Your task to perform on an android device: turn pop-ups on in chrome Image 0: 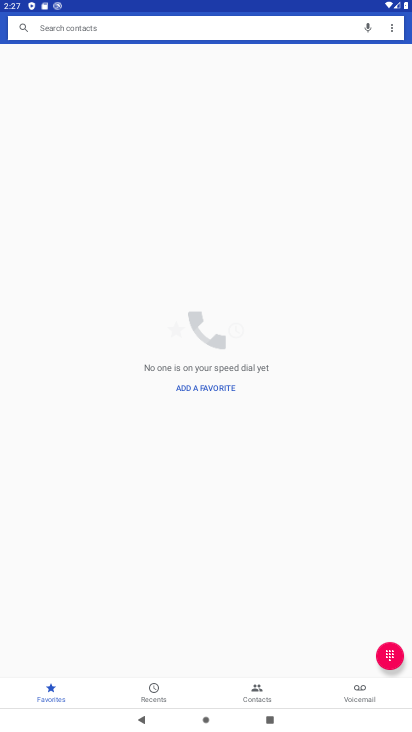
Step 0: press back button
Your task to perform on an android device: turn pop-ups on in chrome Image 1: 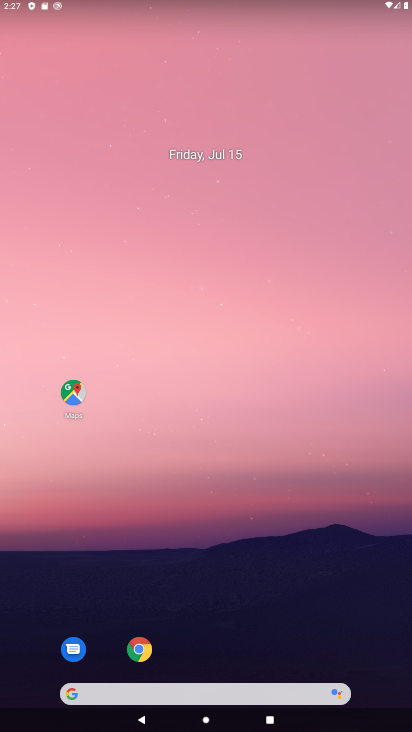
Step 1: drag from (290, 541) to (290, 84)
Your task to perform on an android device: turn pop-ups on in chrome Image 2: 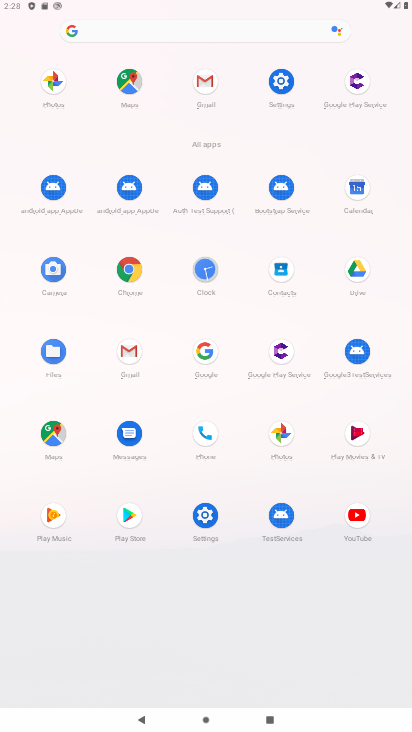
Step 2: click (129, 255)
Your task to perform on an android device: turn pop-ups on in chrome Image 3: 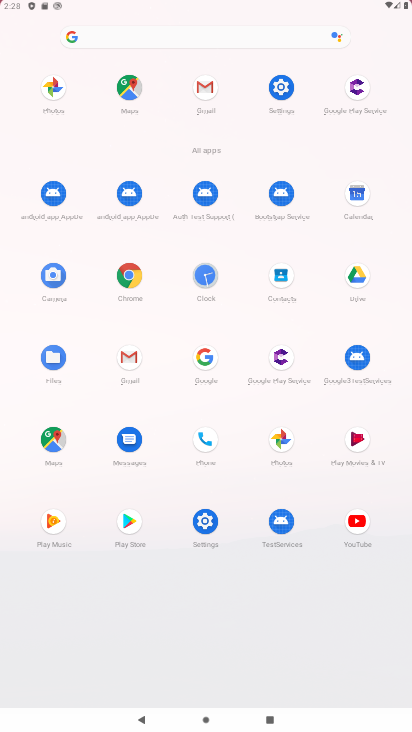
Step 3: click (130, 263)
Your task to perform on an android device: turn pop-ups on in chrome Image 4: 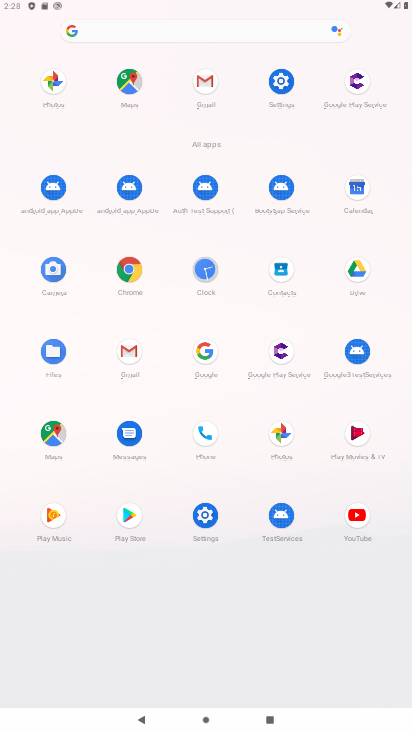
Step 4: click (140, 251)
Your task to perform on an android device: turn pop-ups on in chrome Image 5: 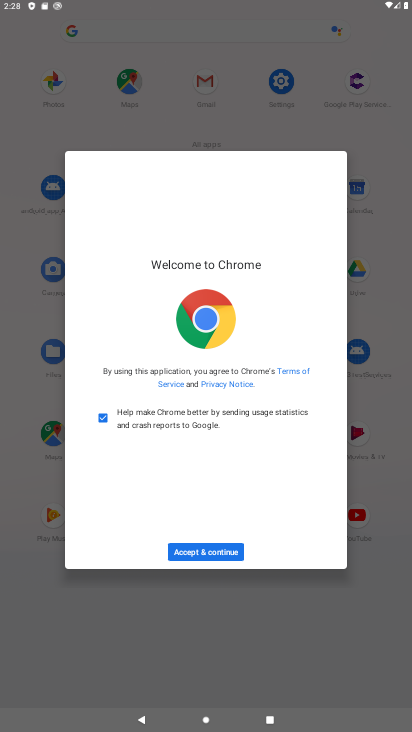
Step 5: click (180, 549)
Your task to perform on an android device: turn pop-ups on in chrome Image 6: 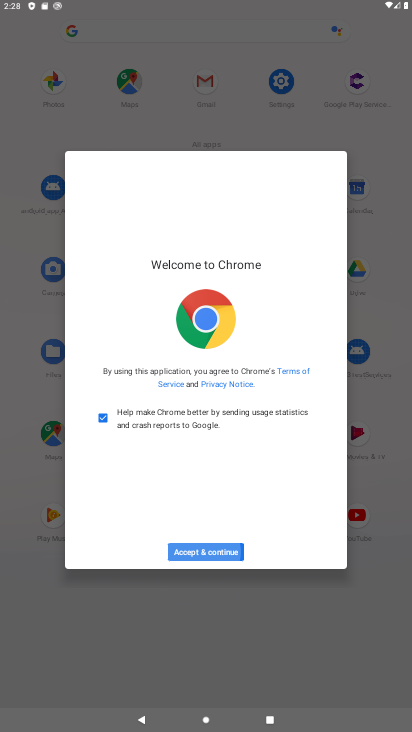
Step 6: click (185, 546)
Your task to perform on an android device: turn pop-ups on in chrome Image 7: 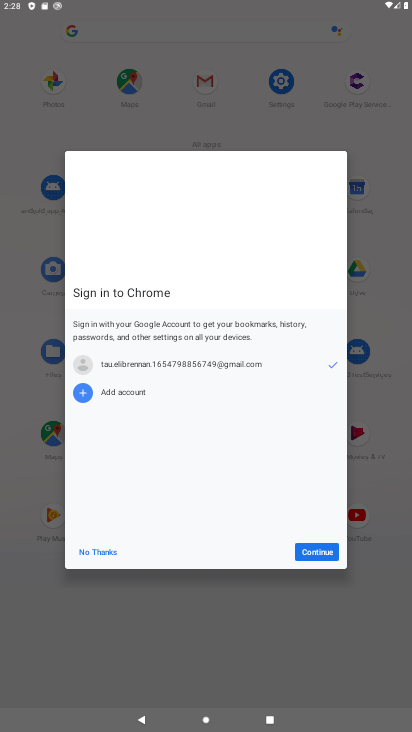
Step 7: click (336, 539)
Your task to perform on an android device: turn pop-ups on in chrome Image 8: 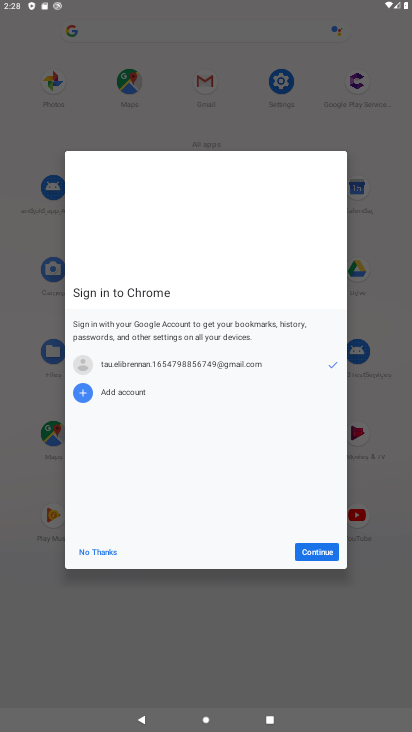
Step 8: click (316, 554)
Your task to perform on an android device: turn pop-ups on in chrome Image 9: 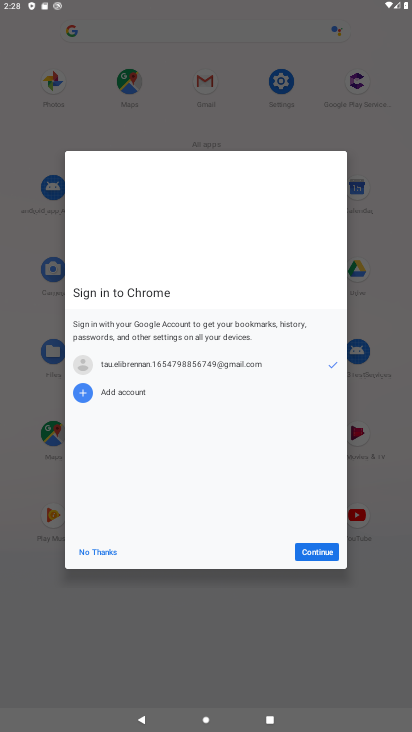
Step 9: click (316, 554)
Your task to perform on an android device: turn pop-ups on in chrome Image 10: 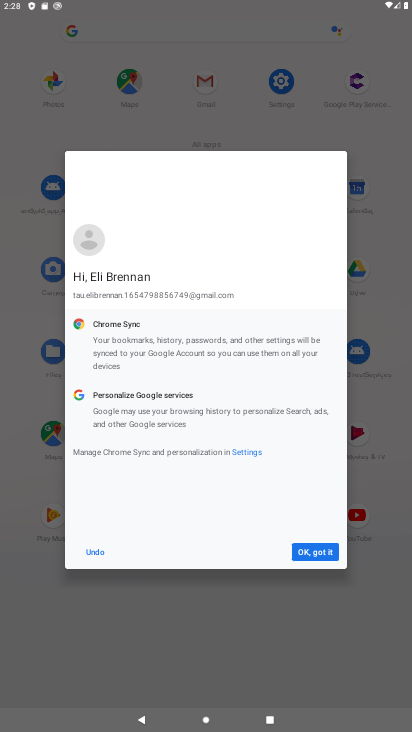
Step 10: click (316, 554)
Your task to perform on an android device: turn pop-ups on in chrome Image 11: 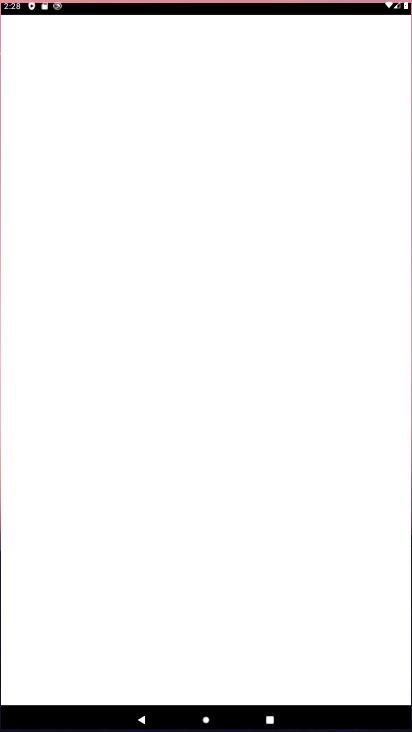
Step 11: click (316, 560)
Your task to perform on an android device: turn pop-ups on in chrome Image 12: 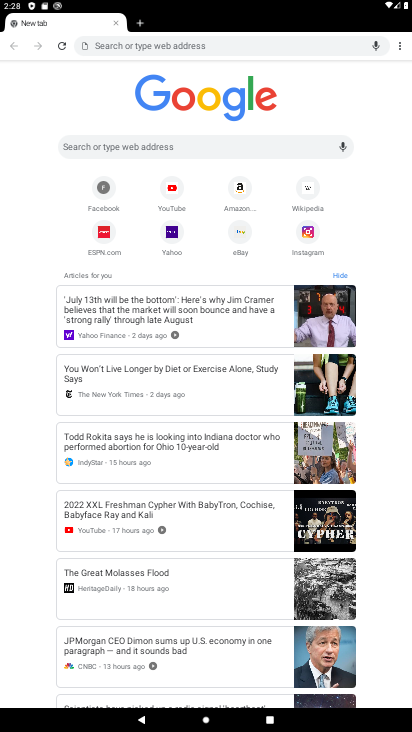
Step 12: drag from (396, 40) to (314, 216)
Your task to perform on an android device: turn pop-ups on in chrome Image 13: 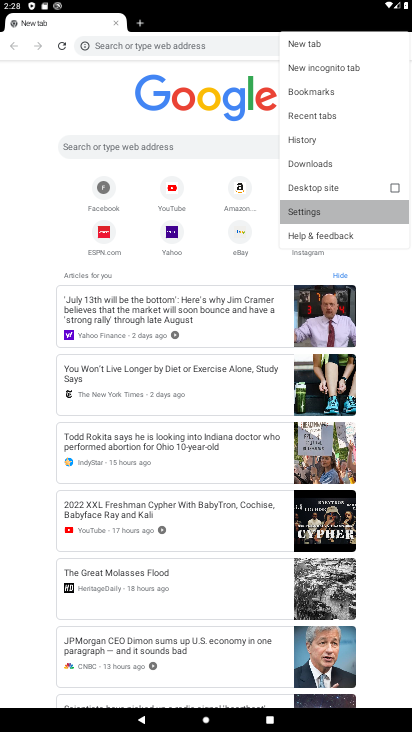
Step 13: click (314, 216)
Your task to perform on an android device: turn pop-ups on in chrome Image 14: 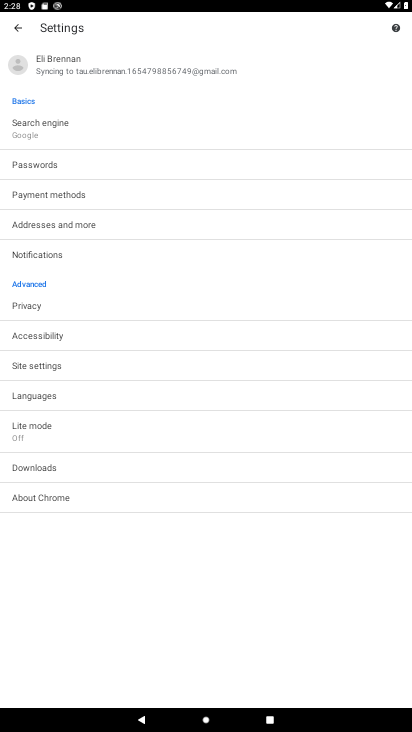
Step 14: click (28, 357)
Your task to perform on an android device: turn pop-ups on in chrome Image 15: 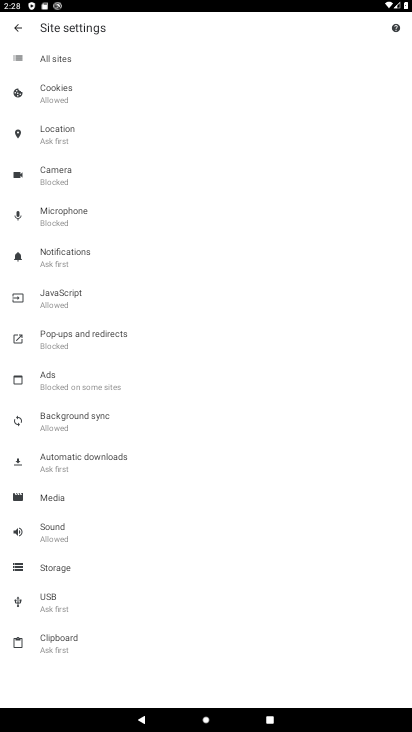
Step 15: click (70, 341)
Your task to perform on an android device: turn pop-ups on in chrome Image 16: 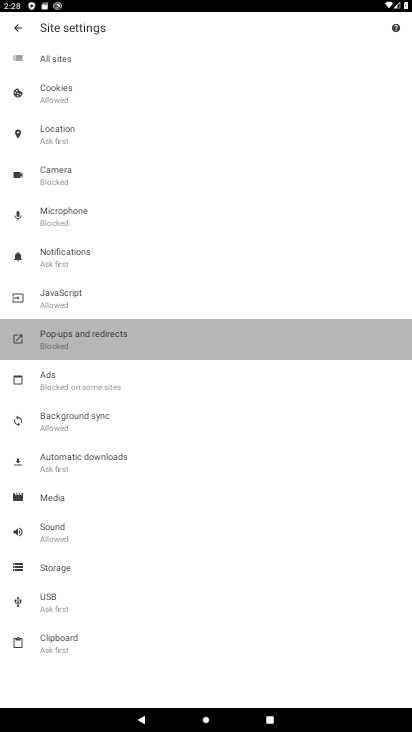
Step 16: click (70, 341)
Your task to perform on an android device: turn pop-ups on in chrome Image 17: 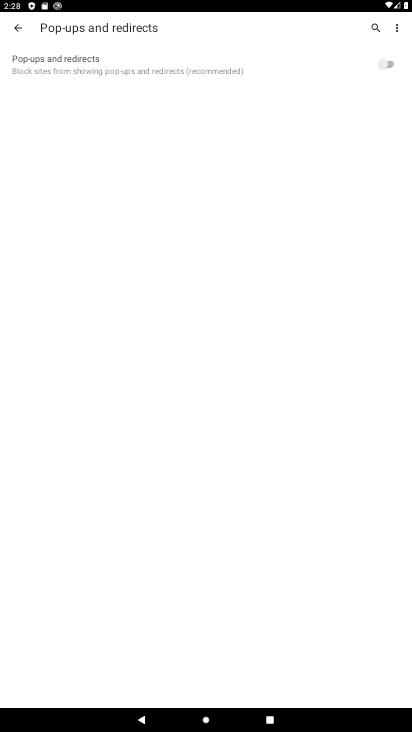
Step 17: click (388, 64)
Your task to perform on an android device: turn pop-ups on in chrome Image 18: 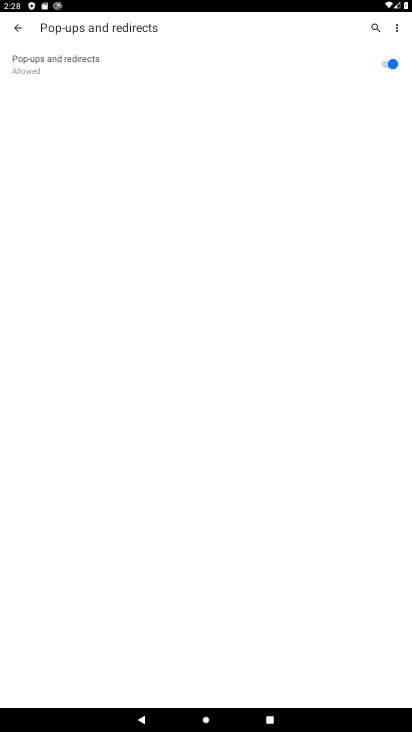
Step 18: task complete